Your task to perform on an android device: Open a new private window in Chrome Image 0: 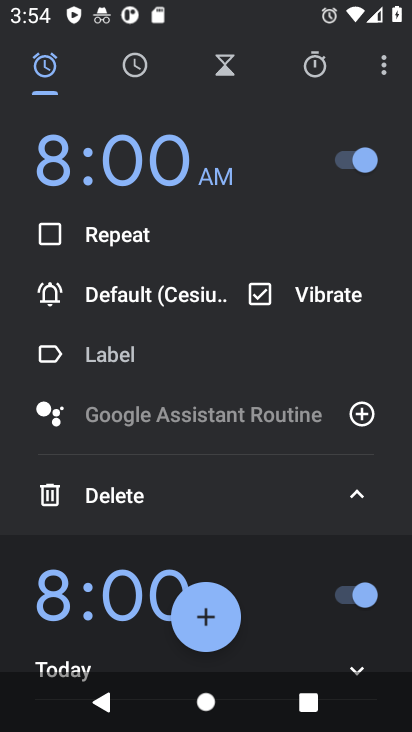
Step 0: press home button
Your task to perform on an android device: Open a new private window in Chrome Image 1: 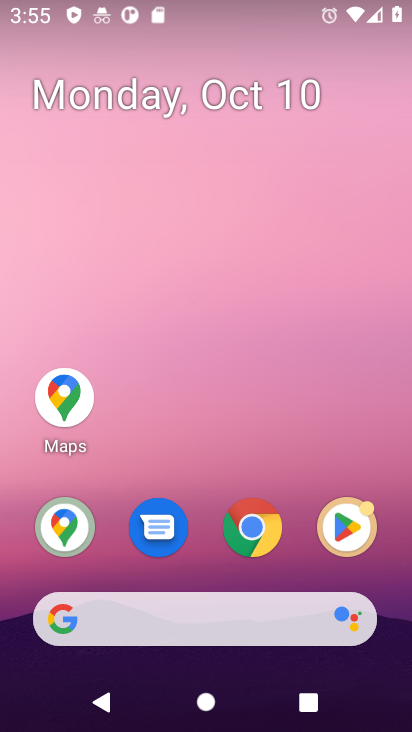
Step 1: click (252, 531)
Your task to perform on an android device: Open a new private window in Chrome Image 2: 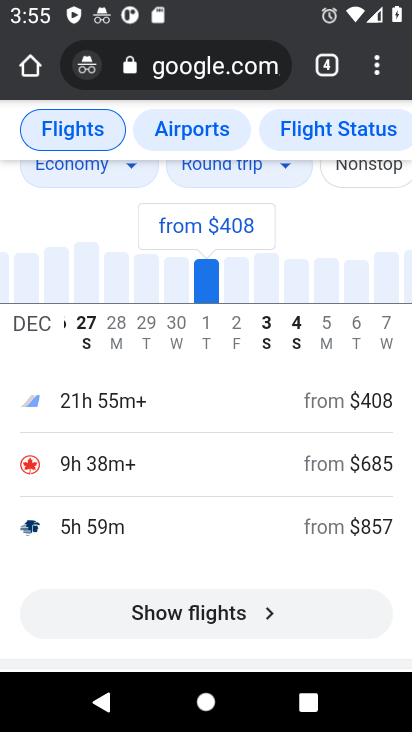
Step 2: click (378, 64)
Your task to perform on an android device: Open a new private window in Chrome Image 3: 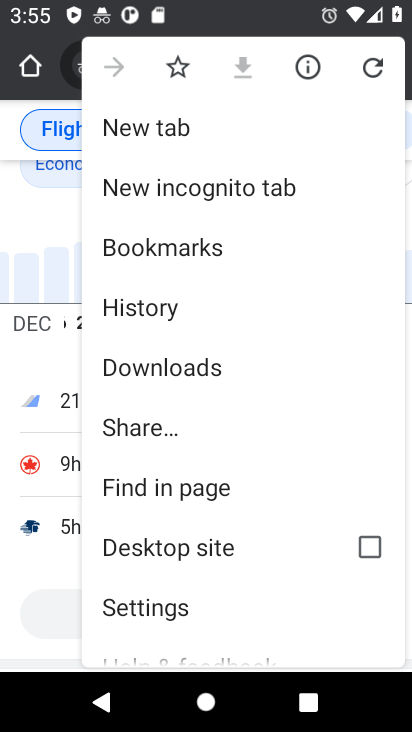
Step 3: click (273, 184)
Your task to perform on an android device: Open a new private window in Chrome Image 4: 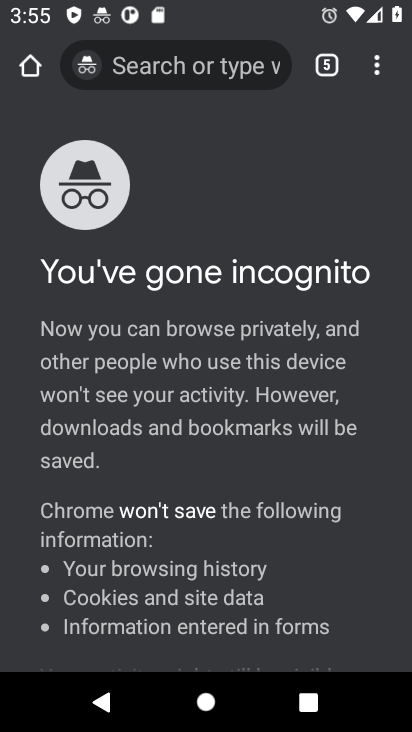
Step 4: task complete